Your task to perform on an android device: Open Amazon Image 0: 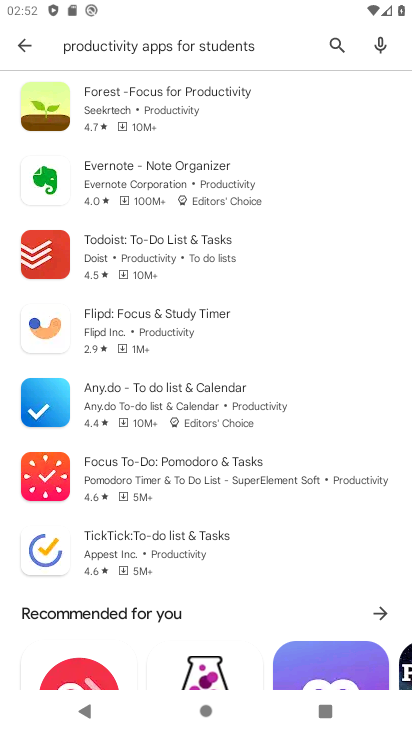
Step 0: press home button
Your task to perform on an android device: Open Amazon Image 1: 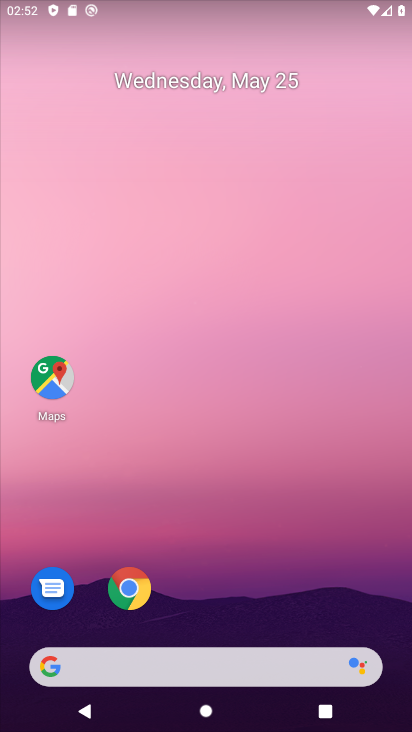
Step 1: click (152, 595)
Your task to perform on an android device: Open Amazon Image 2: 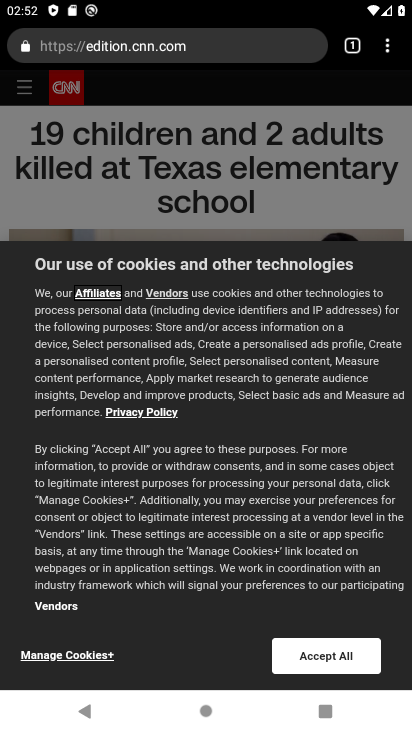
Step 2: drag from (302, 729) to (353, 522)
Your task to perform on an android device: Open Amazon Image 3: 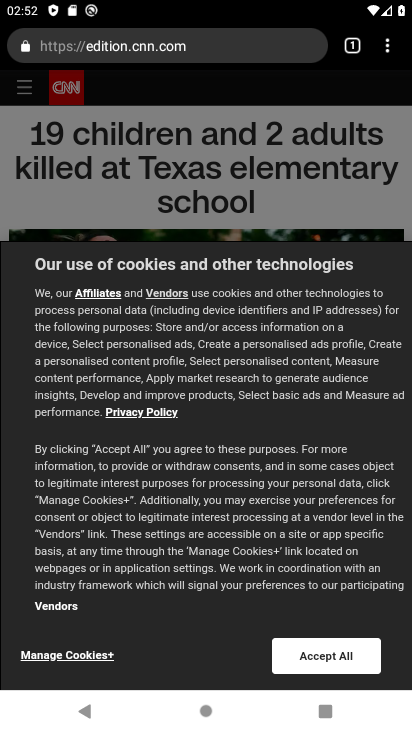
Step 3: click (115, 42)
Your task to perform on an android device: Open Amazon Image 4: 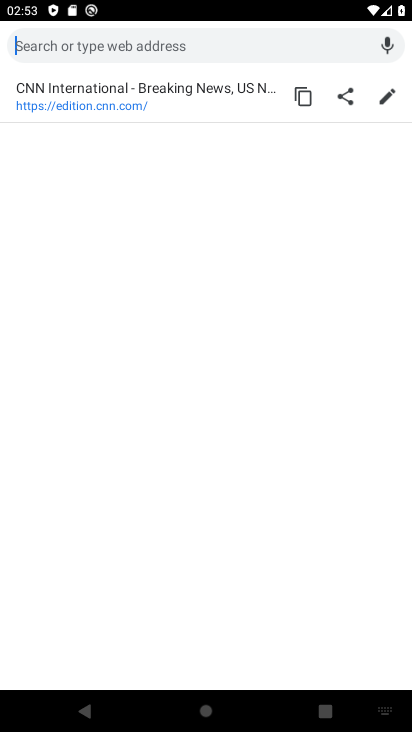
Step 4: type " Amazon"
Your task to perform on an android device: Open Amazon Image 5: 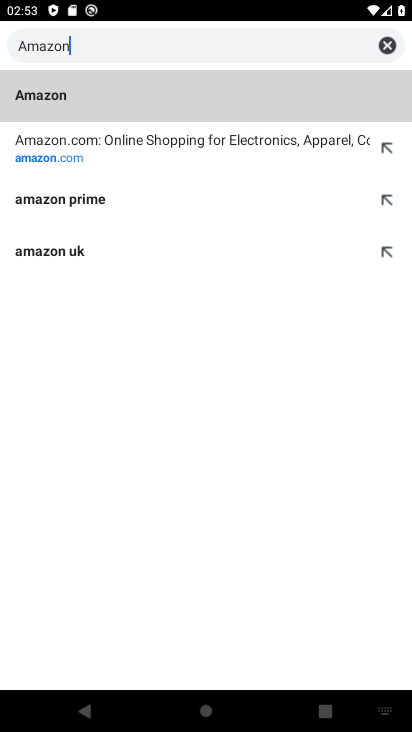
Step 5: type ""
Your task to perform on an android device: Open Amazon Image 6: 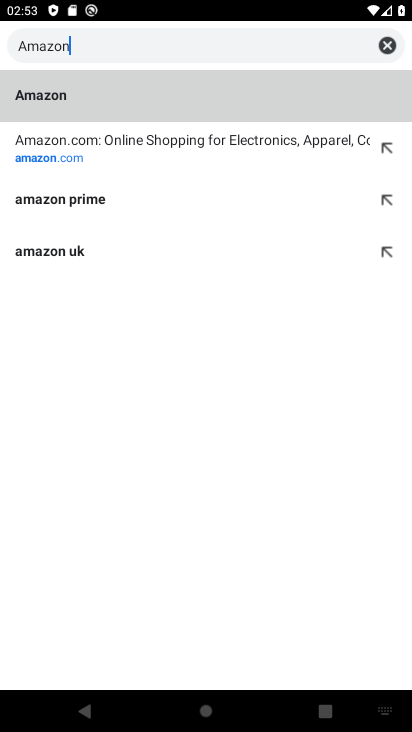
Step 6: click (119, 156)
Your task to perform on an android device: Open Amazon Image 7: 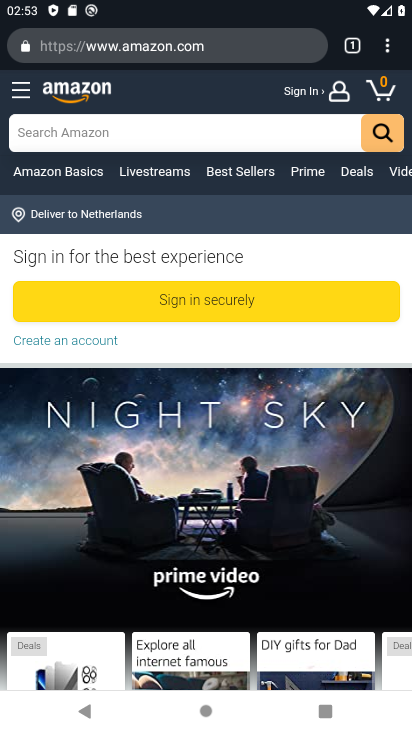
Step 7: task complete